Your task to perform on an android device: see creations saved in the google photos Image 0: 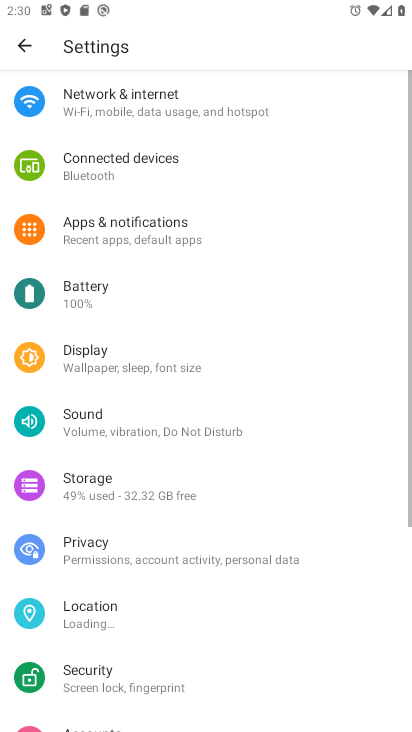
Step 0: press home button
Your task to perform on an android device: see creations saved in the google photos Image 1: 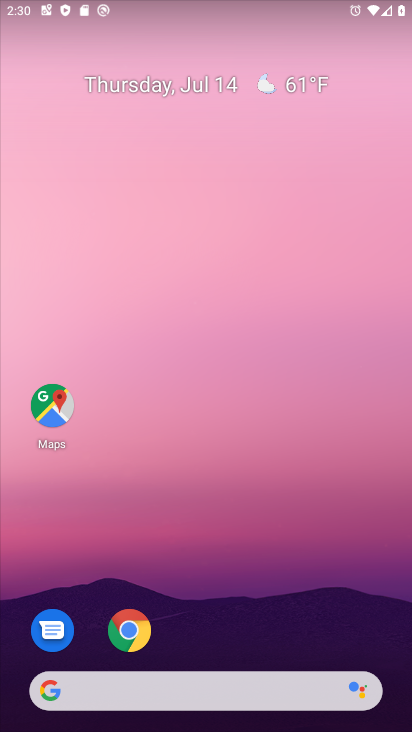
Step 1: drag from (119, 691) to (302, 195)
Your task to perform on an android device: see creations saved in the google photos Image 2: 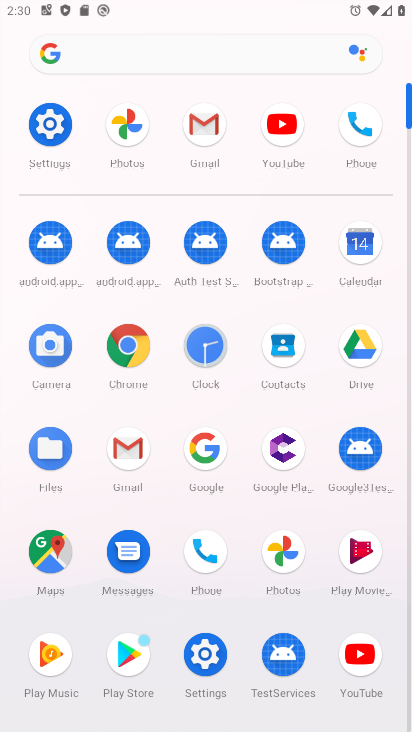
Step 2: click (126, 130)
Your task to perform on an android device: see creations saved in the google photos Image 3: 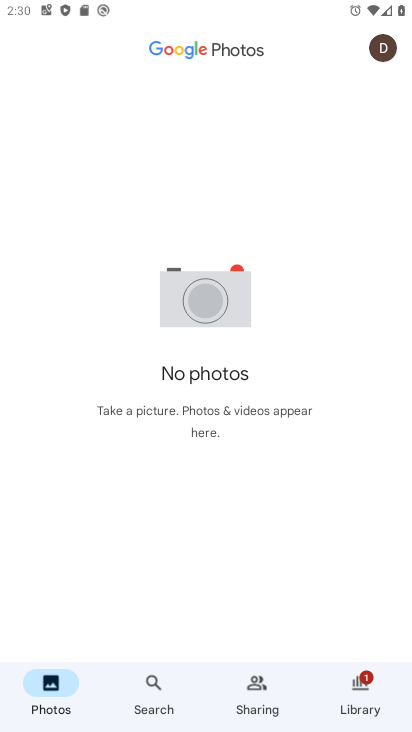
Step 3: click (168, 704)
Your task to perform on an android device: see creations saved in the google photos Image 4: 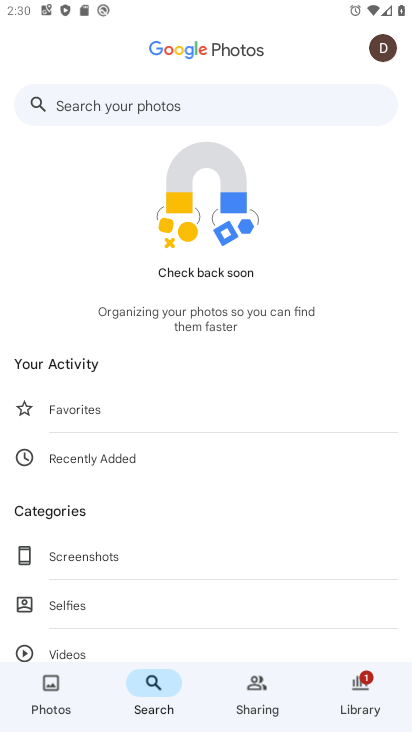
Step 4: drag from (168, 590) to (286, 232)
Your task to perform on an android device: see creations saved in the google photos Image 5: 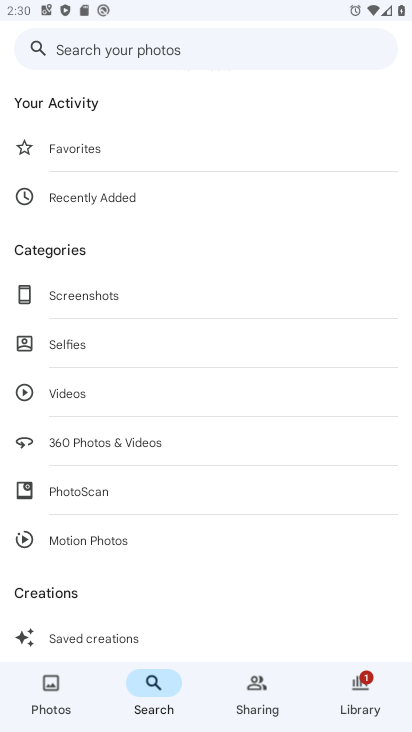
Step 5: click (88, 635)
Your task to perform on an android device: see creations saved in the google photos Image 6: 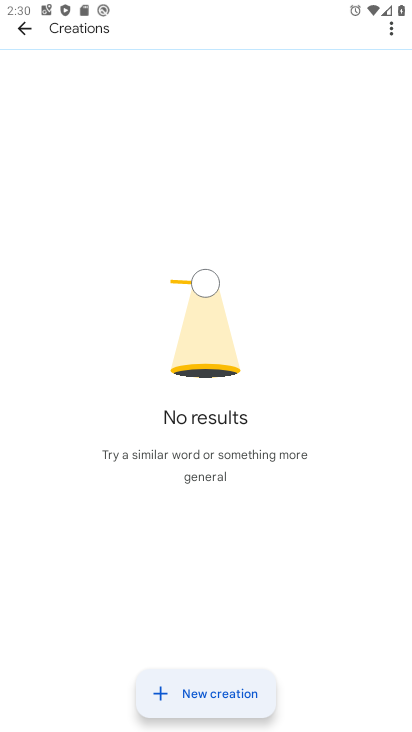
Step 6: task complete